Your task to perform on an android device: Clear all items from cart on bestbuy.com. Image 0: 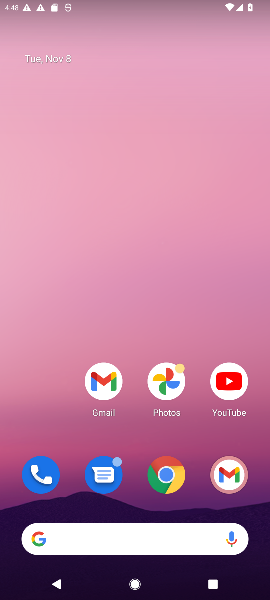
Step 0: drag from (135, 544) to (115, 102)
Your task to perform on an android device: Clear all items from cart on bestbuy.com. Image 1: 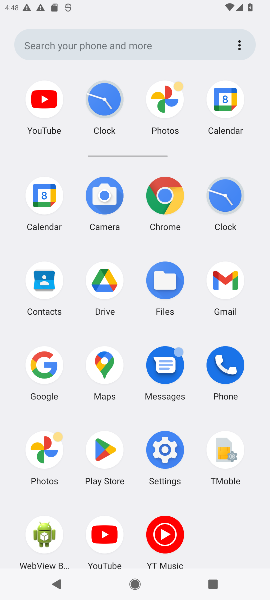
Step 1: click (44, 357)
Your task to perform on an android device: Clear all items from cart on bestbuy.com. Image 2: 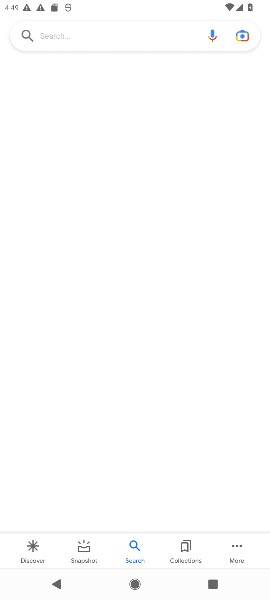
Step 2: click (114, 31)
Your task to perform on an android device: Clear all items from cart on bestbuy.com. Image 3: 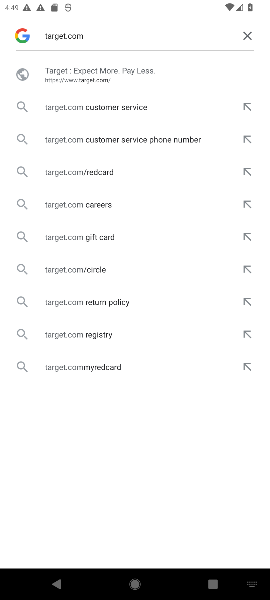
Step 3: type "bestbuy "
Your task to perform on an android device: Clear all items from cart on bestbuy.com. Image 4: 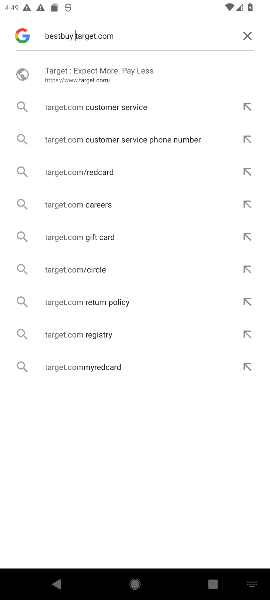
Step 4: click (245, 35)
Your task to perform on an android device: Clear all items from cart on bestbuy.com. Image 5: 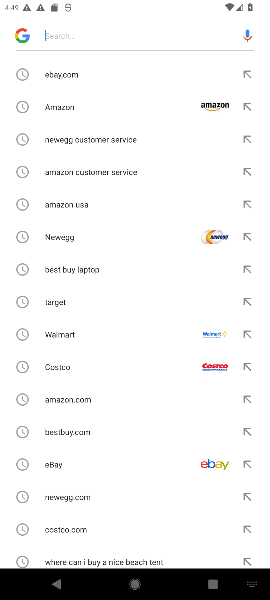
Step 5: click (118, 24)
Your task to perform on an android device: Clear all items from cart on bestbuy.com. Image 6: 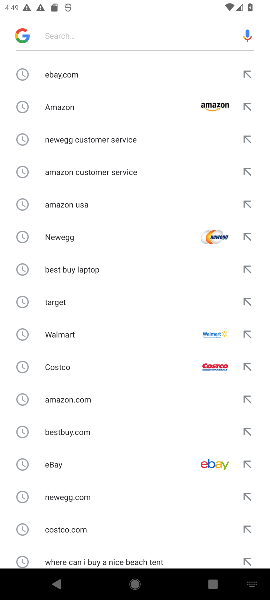
Step 6: type "bestbuy "
Your task to perform on an android device: Clear all items from cart on bestbuy.com. Image 7: 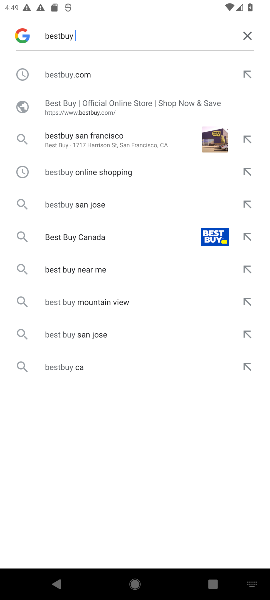
Step 7: click (73, 72)
Your task to perform on an android device: Clear all items from cart on bestbuy.com. Image 8: 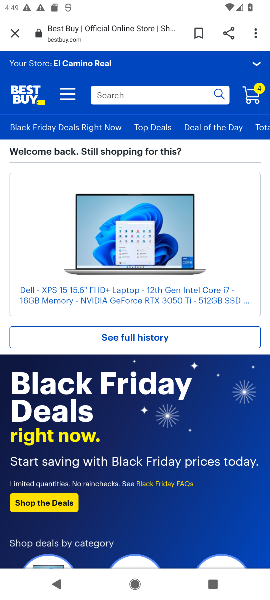
Step 8: click (255, 90)
Your task to perform on an android device: Clear all items from cart on bestbuy.com. Image 9: 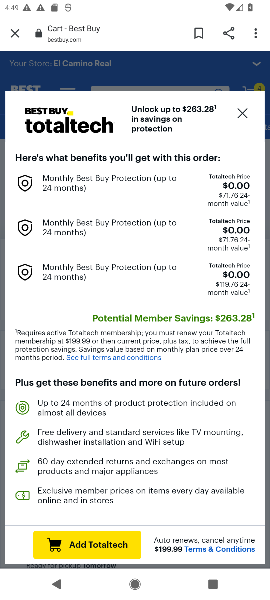
Step 9: click (244, 106)
Your task to perform on an android device: Clear all items from cart on bestbuy.com. Image 10: 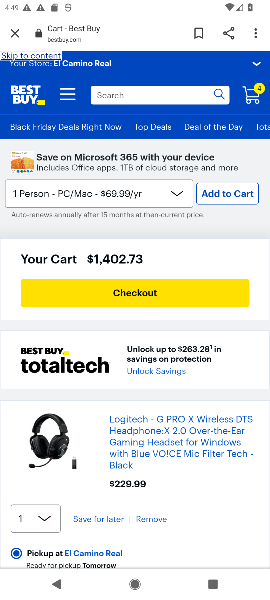
Step 10: drag from (65, 527) to (55, 265)
Your task to perform on an android device: Clear all items from cart on bestbuy.com. Image 11: 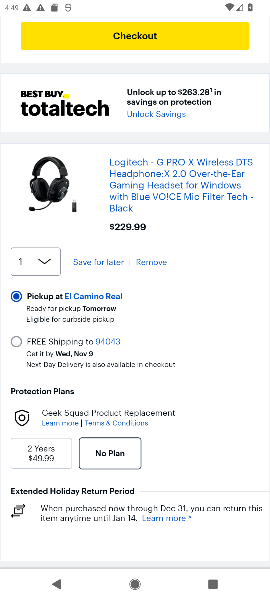
Step 11: click (140, 262)
Your task to perform on an android device: Clear all items from cart on bestbuy.com. Image 12: 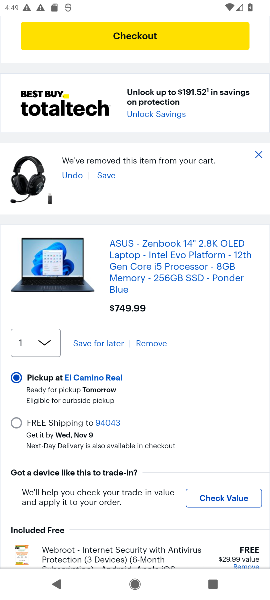
Step 12: click (158, 342)
Your task to perform on an android device: Clear all items from cart on bestbuy.com. Image 13: 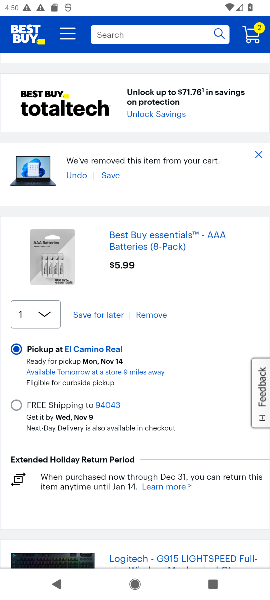
Step 13: click (147, 323)
Your task to perform on an android device: Clear all items from cart on bestbuy.com. Image 14: 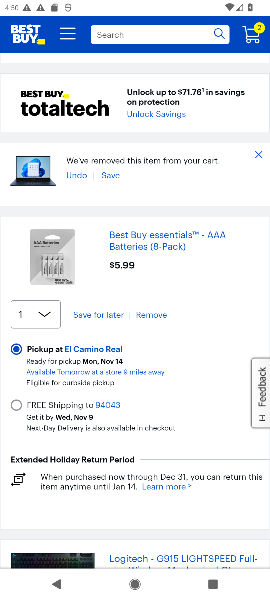
Step 14: click (147, 318)
Your task to perform on an android device: Clear all items from cart on bestbuy.com. Image 15: 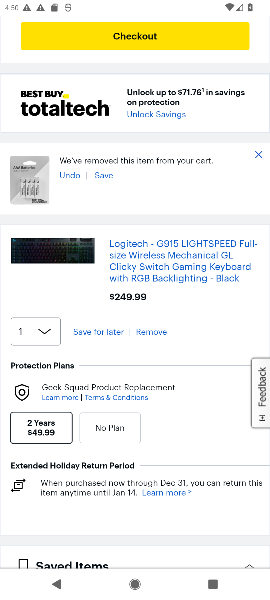
Step 15: click (152, 332)
Your task to perform on an android device: Clear all items from cart on bestbuy.com. Image 16: 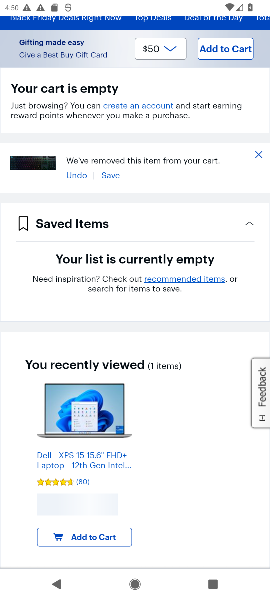
Step 16: task complete